Your task to perform on an android device: Find coffee shops on Maps Image 0: 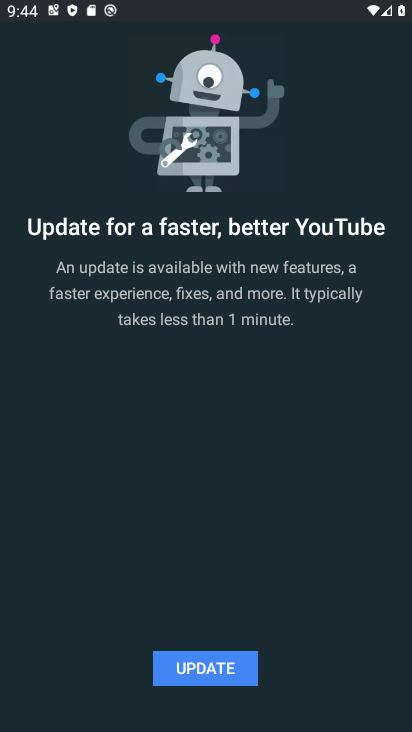
Step 0: press home button
Your task to perform on an android device: Find coffee shops on Maps Image 1: 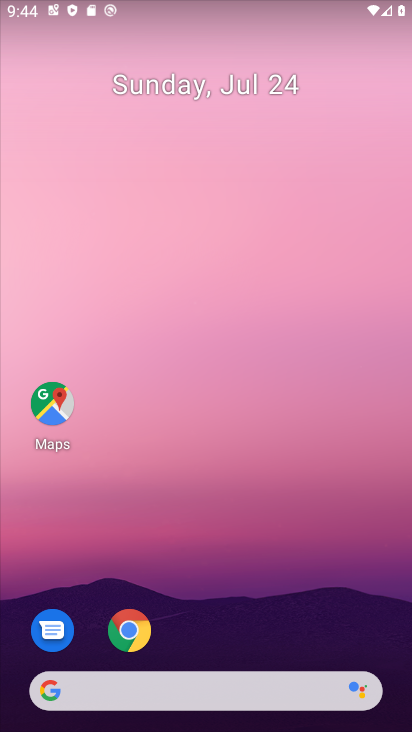
Step 1: click (70, 429)
Your task to perform on an android device: Find coffee shops on Maps Image 2: 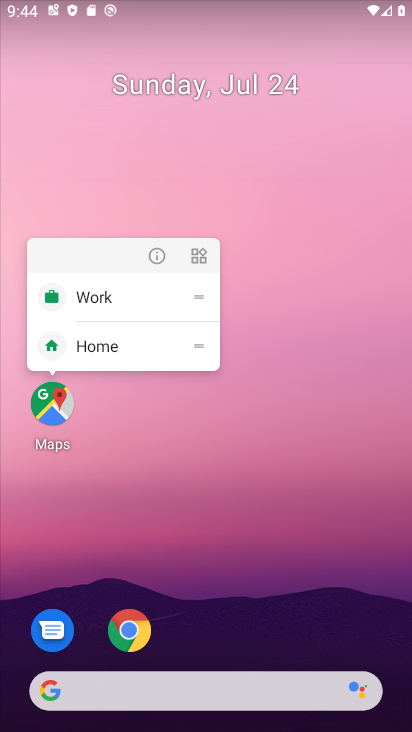
Step 2: click (40, 393)
Your task to perform on an android device: Find coffee shops on Maps Image 3: 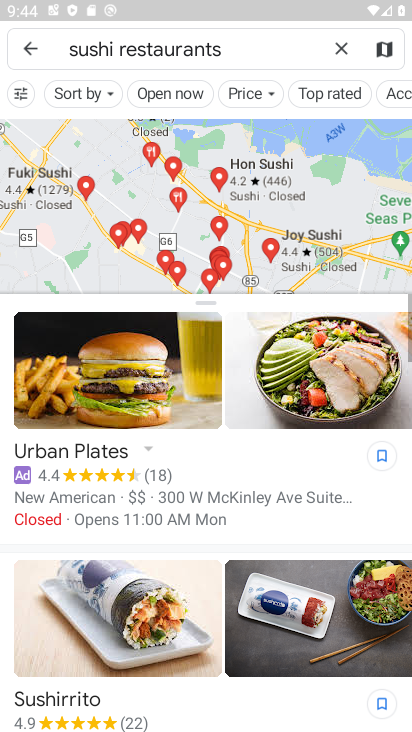
Step 3: click (332, 45)
Your task to perform on an android device: Find coffee shops on Maps Image 4: 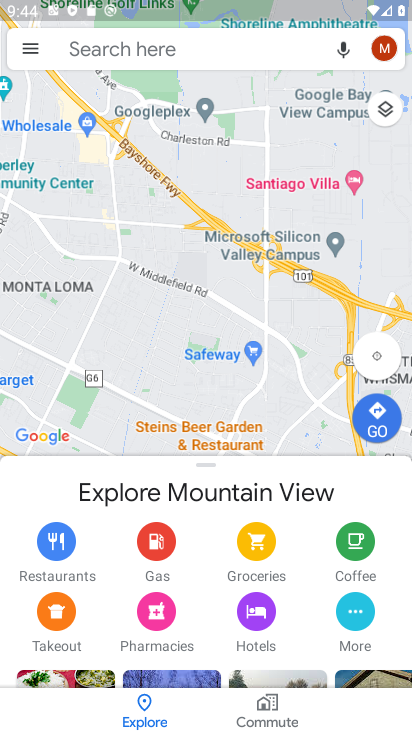
Step 4: type "coffee shops"
Your task to perform on an android device: Find coffee shops on Maps Image 5: 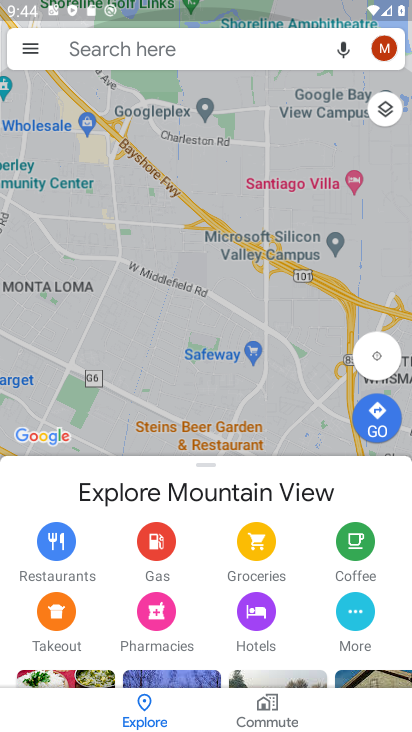
Step 5: type ""
Your task to perform on an android device: Find coffee shops on Maps Image 6: 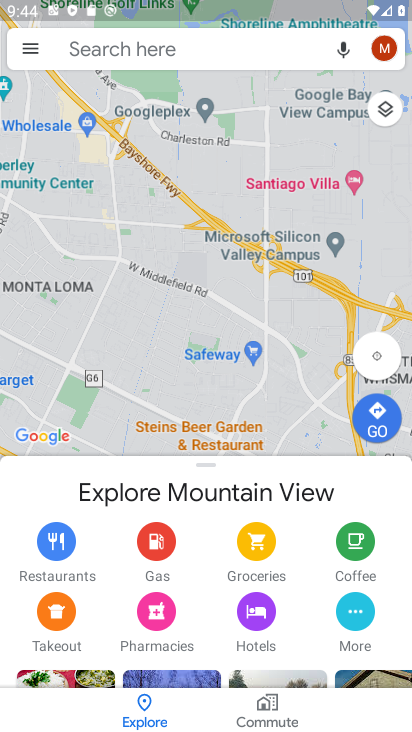
Step 6: click (204, 57)
Your task to perform on an android device: Find coffee shops on Maps Image 7: 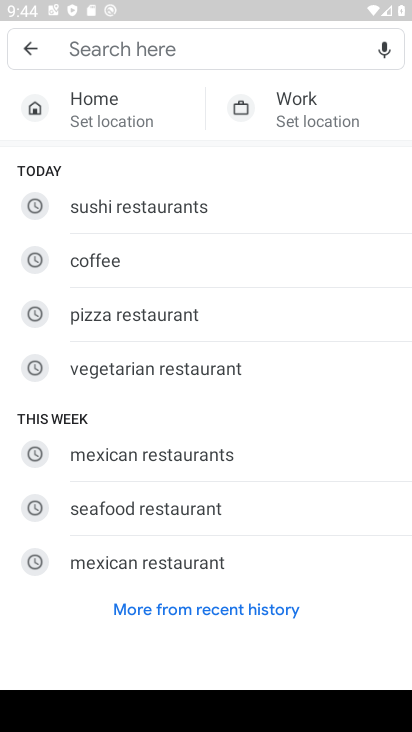
Step 7: type "coffee shops"
Your task to perform on an android device: Find coffee shops on Maps Image 8: 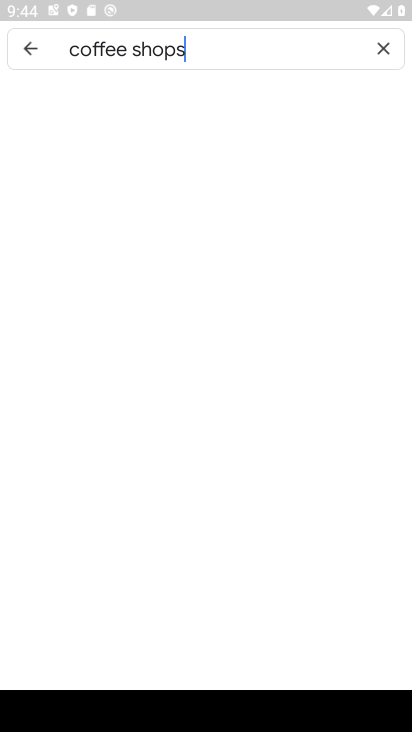
Step 8: type ""
Your task to perform on an android device: Find coffee shops on Maps Image 9: 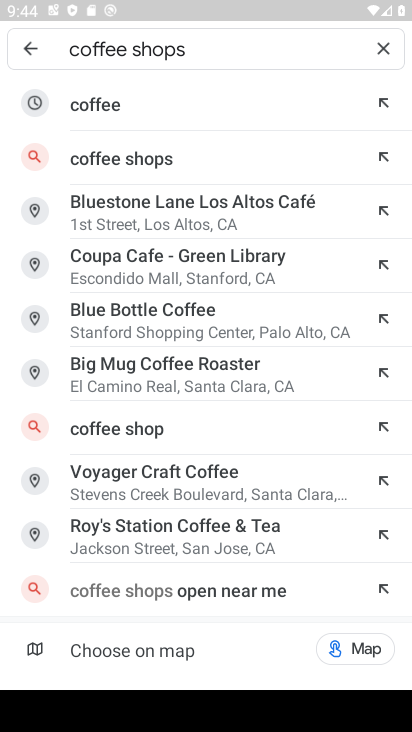
Step 9: click (172, 151)
Your task to perform on an android device: Find coffee shops on Maps Image 10: 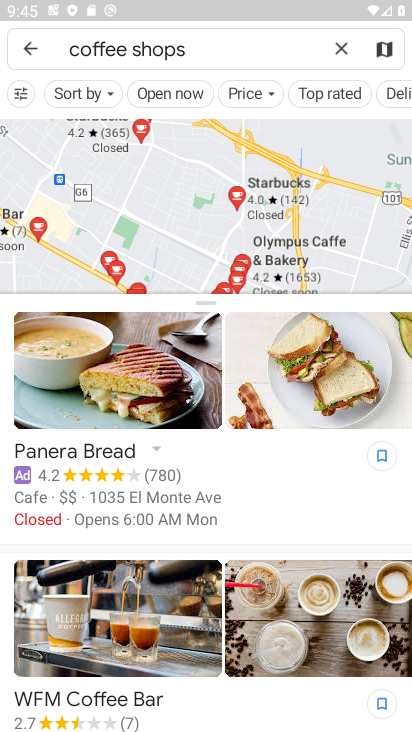
Step 10: task complete